Your task to perform on an android device: Open network settings Image 0: 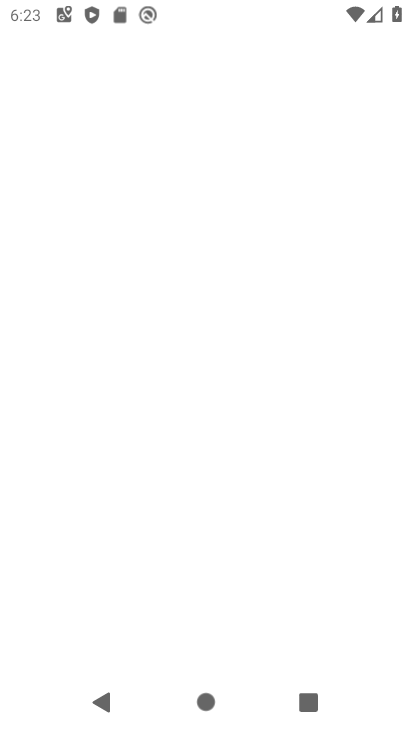
Step 0: press home button
Your task to perform on an android device: Open network settings Image 1: 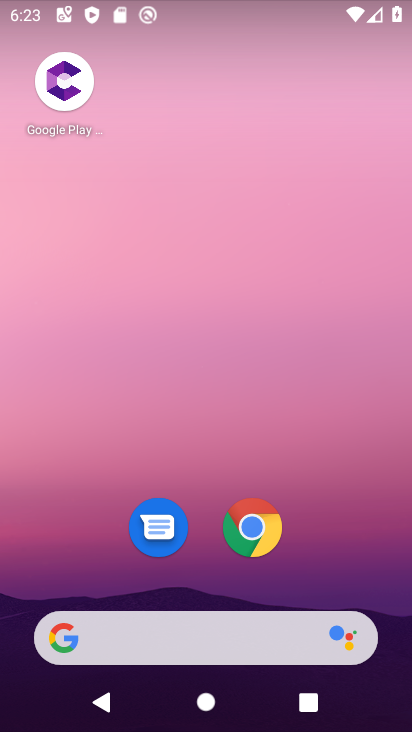
Step 1: drag from (205, 591) to (290, 19)
Your task to perform on an android device: Open network settings Image 2: 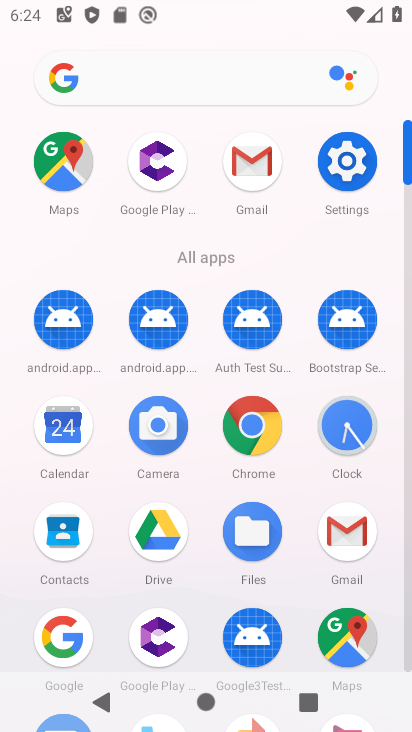
Step 2: click (353, 158)
Your task to perform on an android device: Open network settings Image 3: 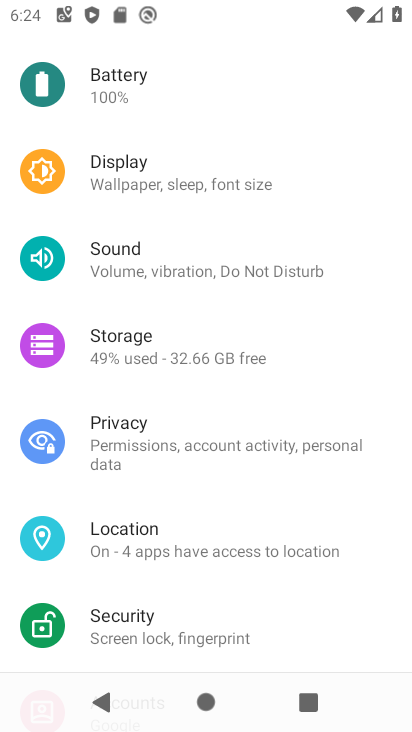
Step 3: drag from (205, 131) to (251, 663)
Your task to perform on an android device: Open network settings Image 4: 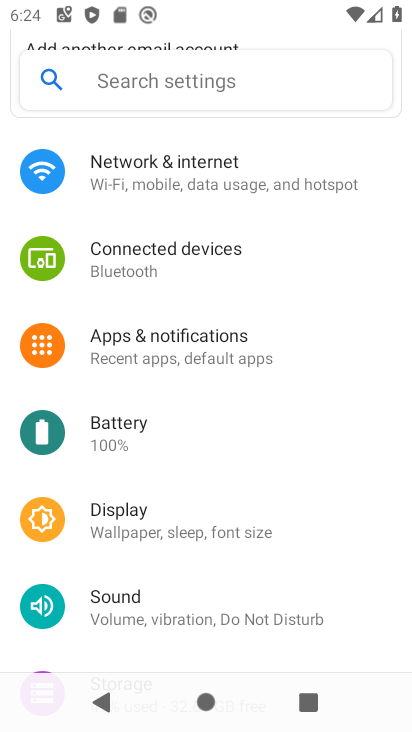
Step 4: click (136, 158)
Your task to perform on an android device: Open network settings Image 5: 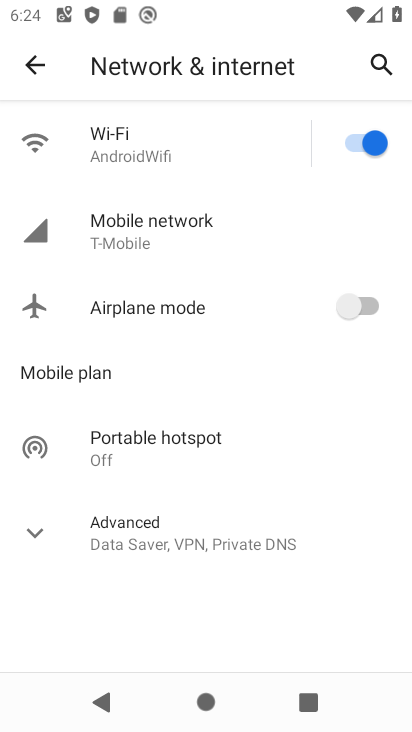
Step 5: task complete